Your task to perform on an android device: Open wifi settings Image 0: 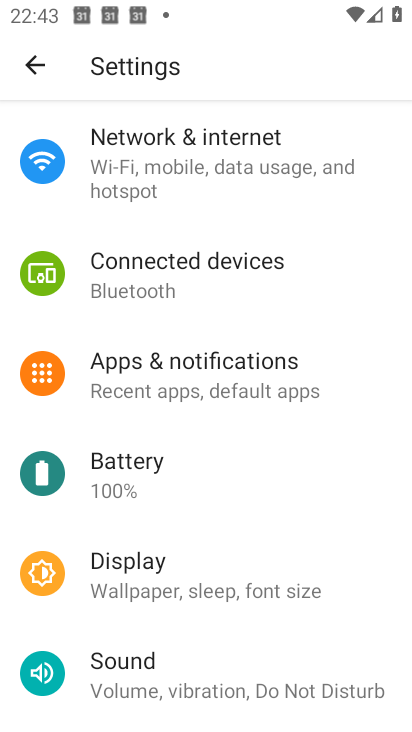
Step 0: click (172, 181)
Your task to perform on an android device: Open wifi settings Image 1: 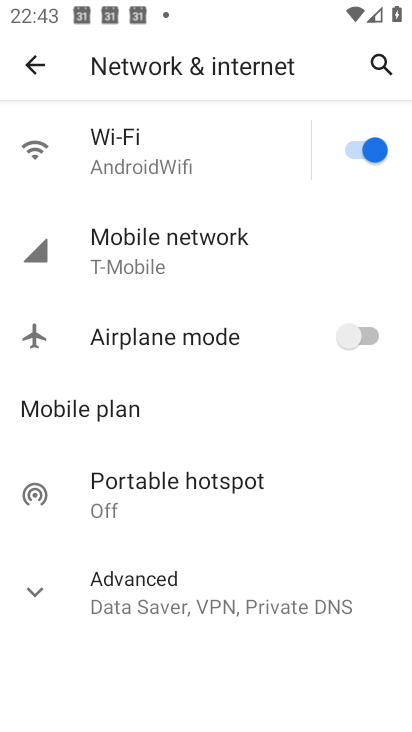
Step 1: click (152, 156)
Your task to perform on an android device: Open wifi settings Image 2: 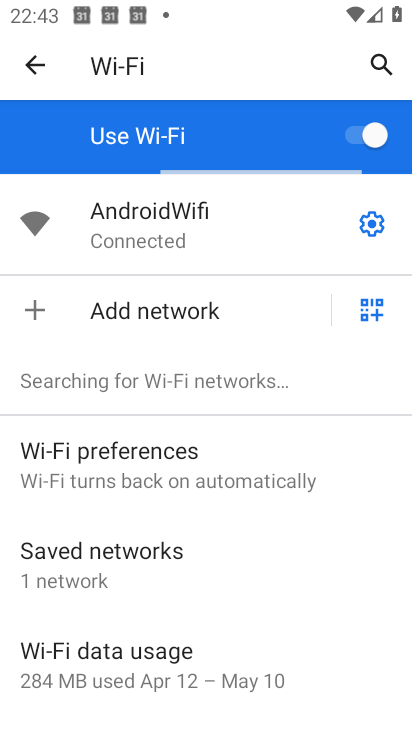
Step 2: task complete